Your task to perform on an android device: turn on translation in the chrome app Image 0: 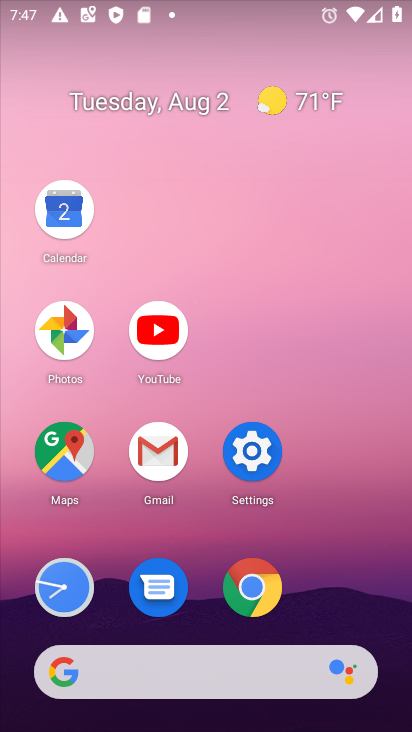
Step 0: click (246, 593)
Your task to perform on an android device: turn on translation in the chrome app Image 1: 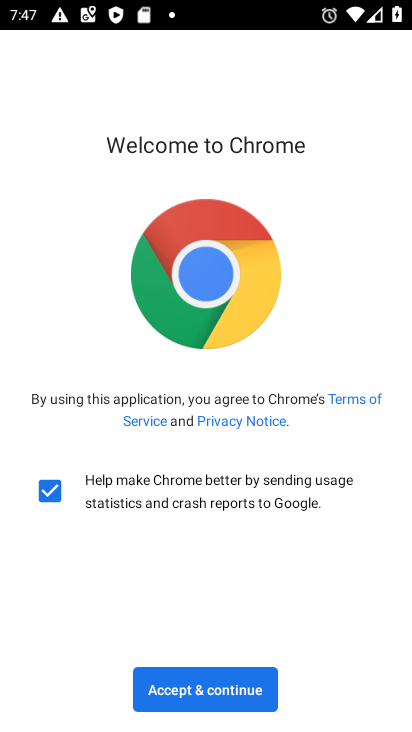
Step 1: click (214, 688)
Your task to perform on an android device: turn on translation in the chrome app Image 2: 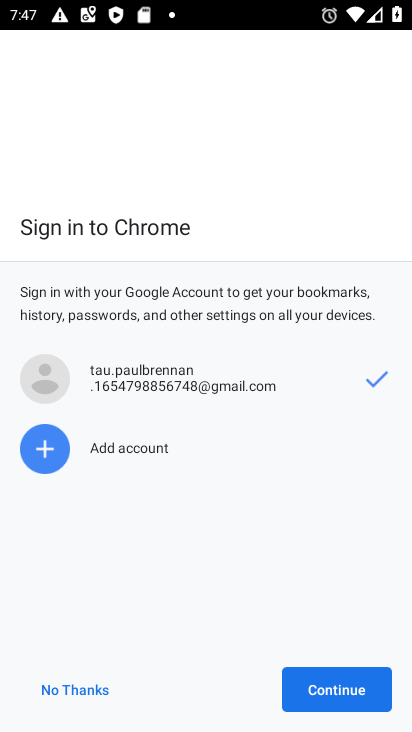
Step 2: click (316, 688)
Your task to perform on an android device: turn on translation in the chrome app Image 3: 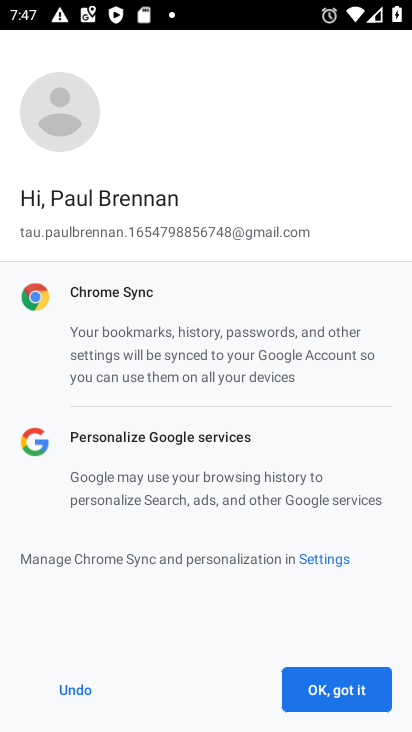
Step 3: click (362, 692)
Your task to perform on an android device: turn on translation in the chrome app Image 4: 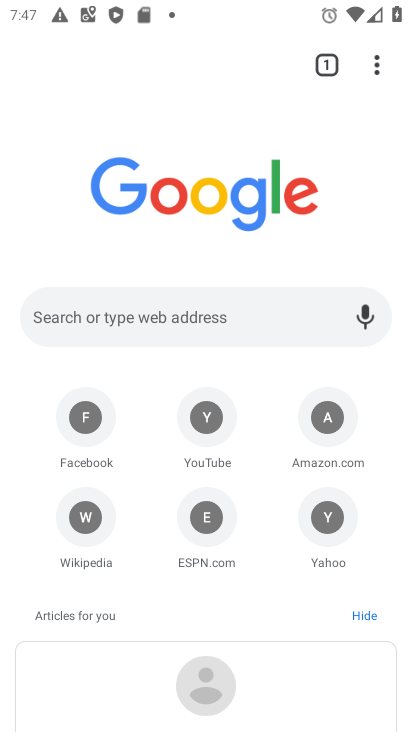
Step 4: click (383, 69)
Your task to perform on an android device: turn on translation in the chrome app Image 5: 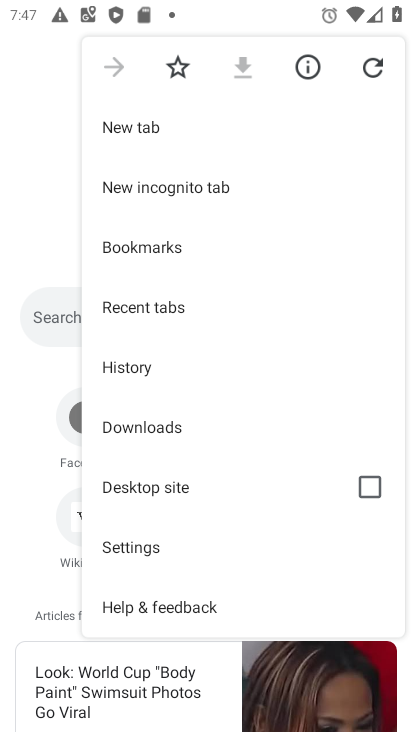
Step 5: click (133, 548)
Your task to perform on an android device: turn on translation in the chrome app Image 6: 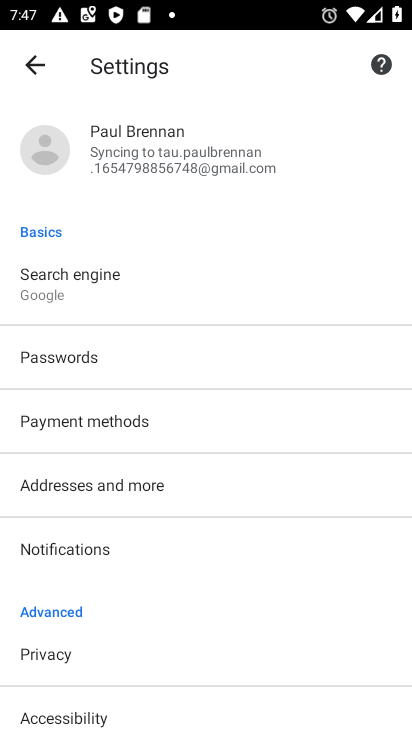
Step 6: drag from (220, 620) to (174, 217)
Your task to perform on an android device: turn on translation in the chrome app Image 7: 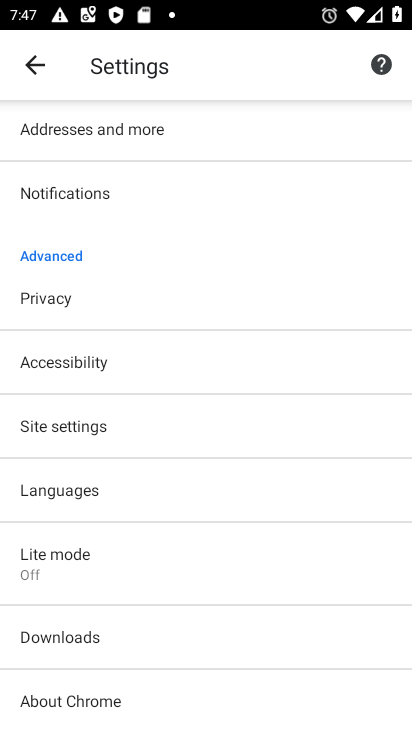
Step 7: click (81, 490)
Your task to perform on an android device: turn on translation in the chrome app Image 8: 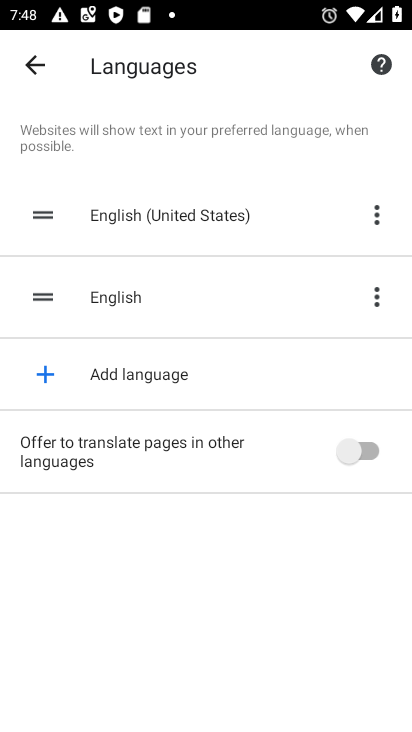
Step 8: click (355, 451)
Your task to perform on an android device: turn on translation in the chrome app Image 9: 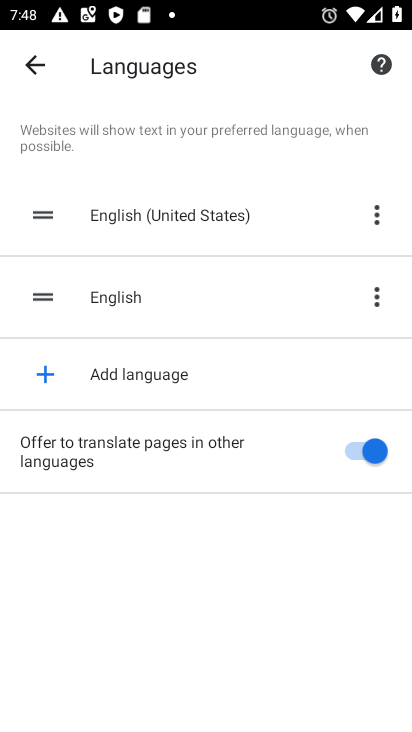
Step 9: task complete